Your task to perform on an android device: Go to sound settings Image 0: 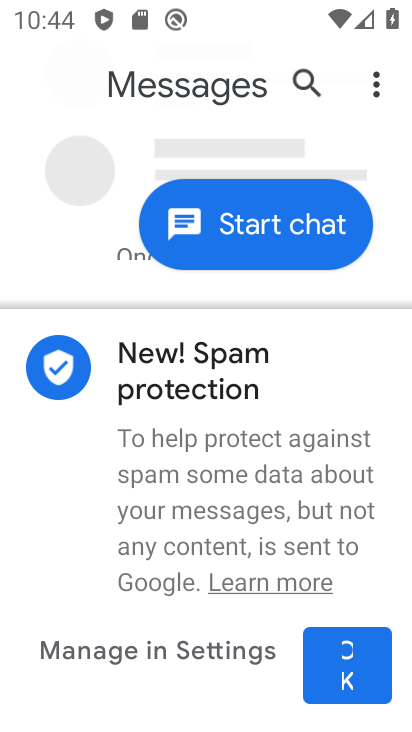
Step 0: press home button
Your task to perform on an android device: Go to sound settings Image 1: 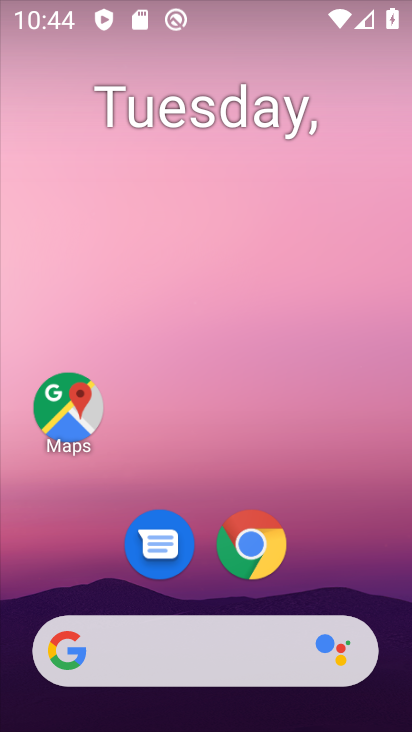
Step 1: drag from (391, 609) to (311, 69)
Your task to perform on an android device: Go to sound settings Image 2: 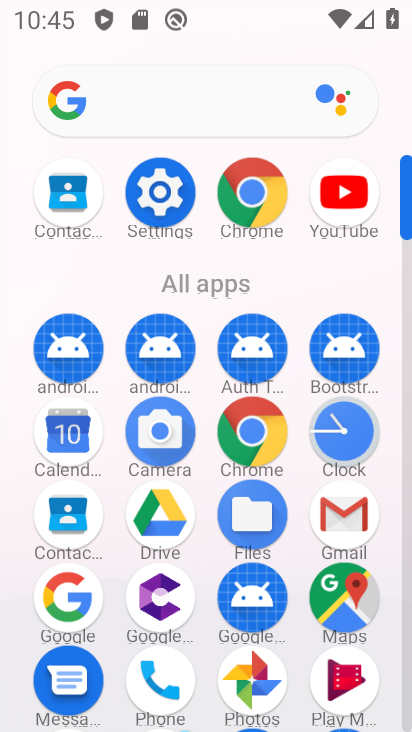
Step 2: click (162, 206)
Your task to perform on an android device: Go to sound settings Image 3: 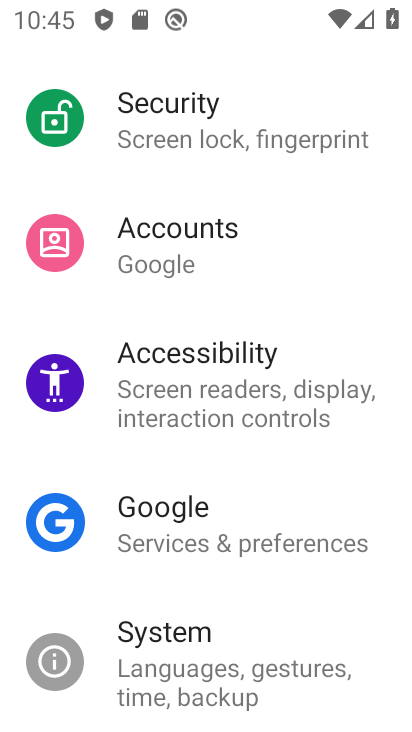
Step 3: drag from (184, 167) to (181, 617)
Your task to perform on an android device: Go to sound settings Image 4: 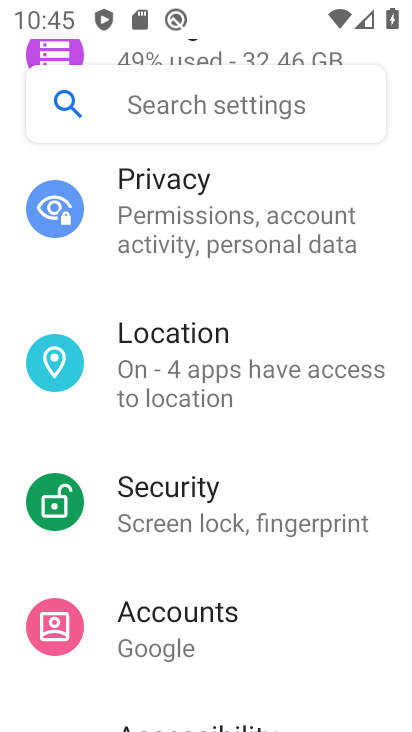
Step 4: drag from (189, 266) to (183, 651)
Your task to perform on an android device: Go to sound settings Image 5: 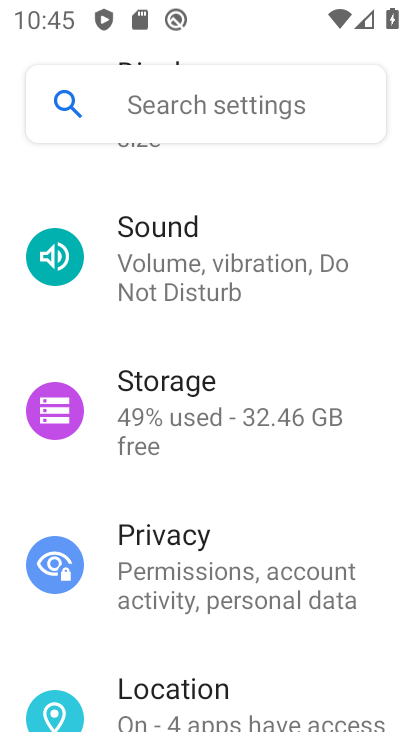
Step 5: click (213, 282)
Your task to perform on an android device: Go to sound settings Image 6: 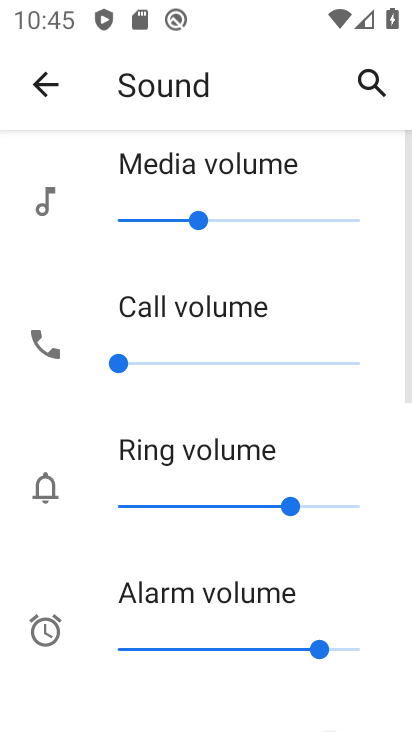
Step 6: task complete